Your task to perform on an android device: Search for flights from Seoul to Mexico city Image 0: 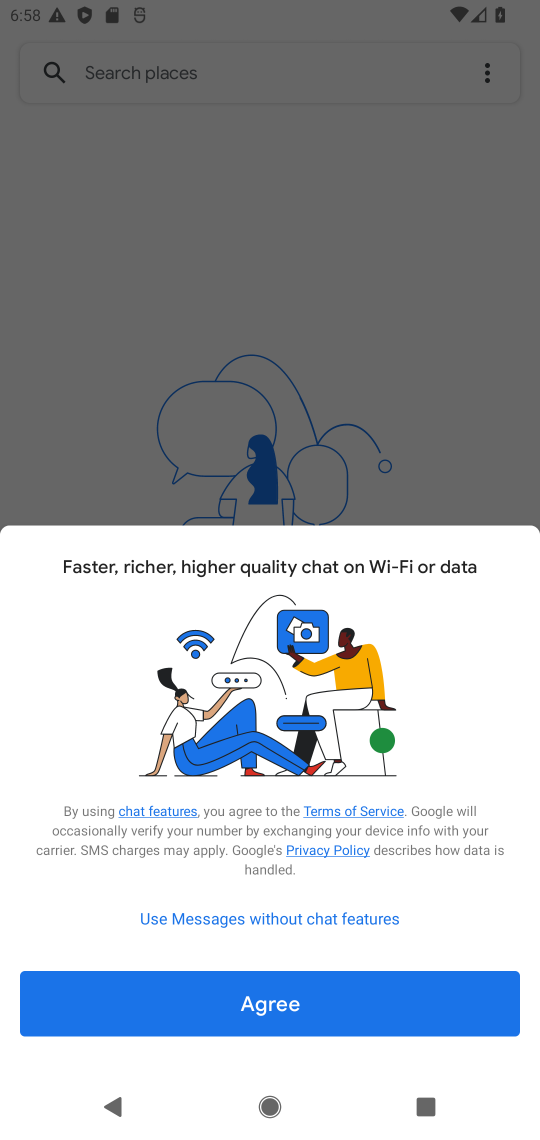
Step 0: click (459, 1008)
Your task to perform on an android device: Search for flights from Seoul to Mexico city Image 1: 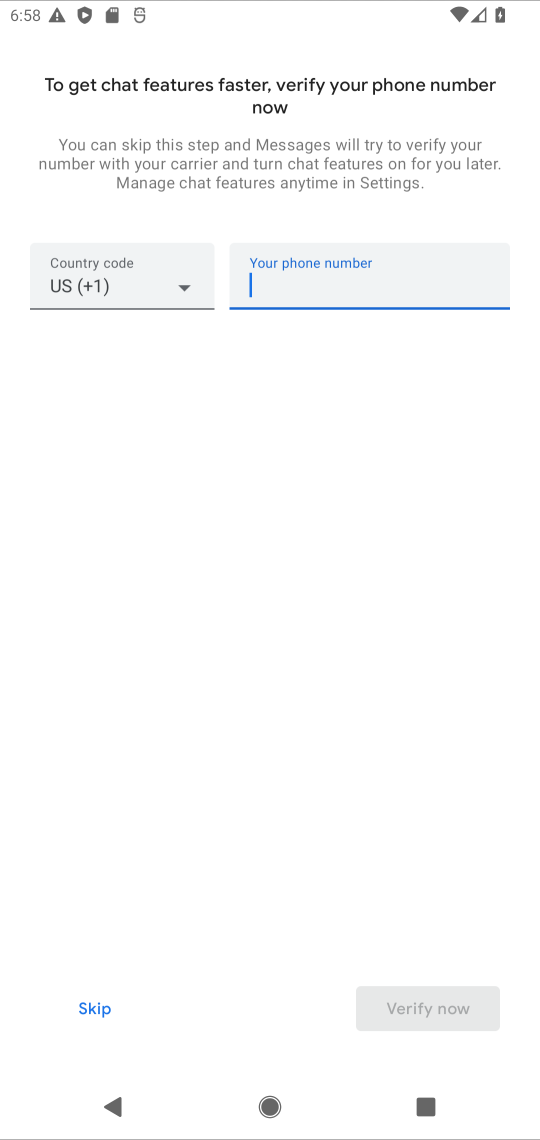
Step 1: click (408, 1121)
Your task to perform on an android device: Search for flights from Seoul to Mexico city Image 2: 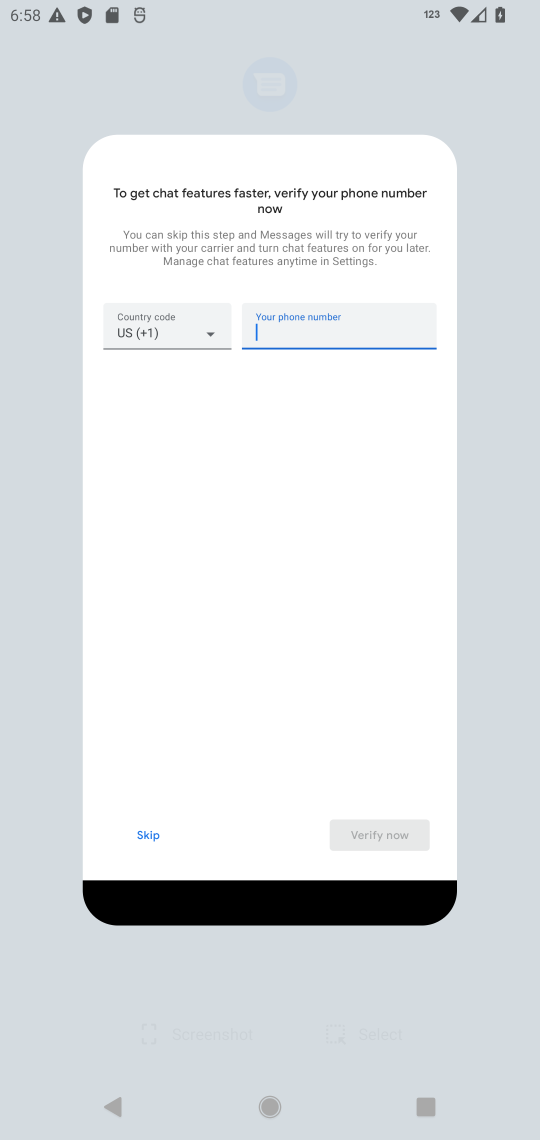
Step 2: press home button
Your task to perform on an android device: Search for flights from Seoul to Mexico city Image 3: 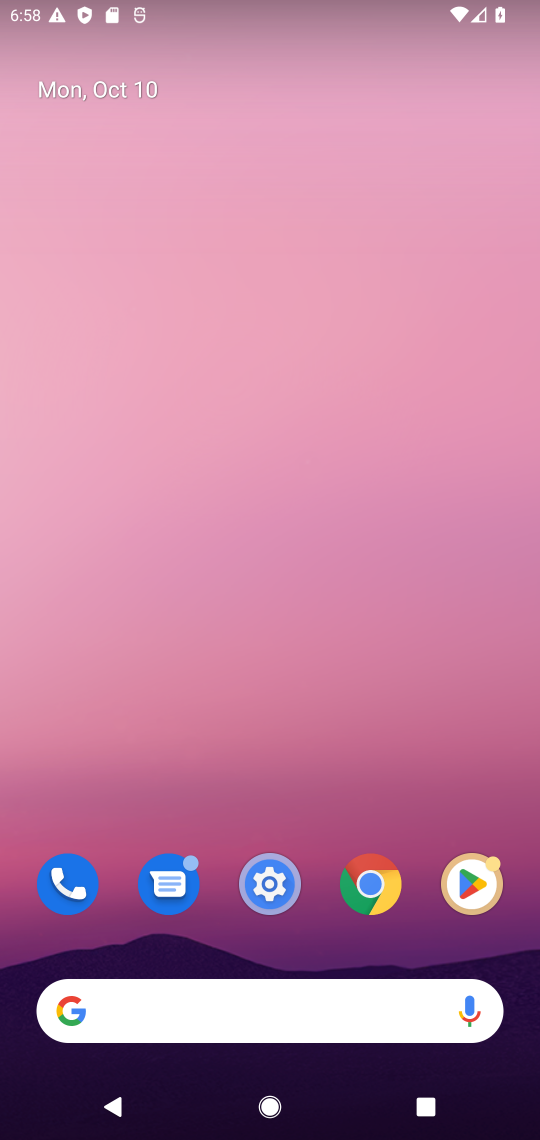
Step 3: click (383, 897)
Your task to perform on an android device: Search for flights from Seoul to Mexico city Image 4: 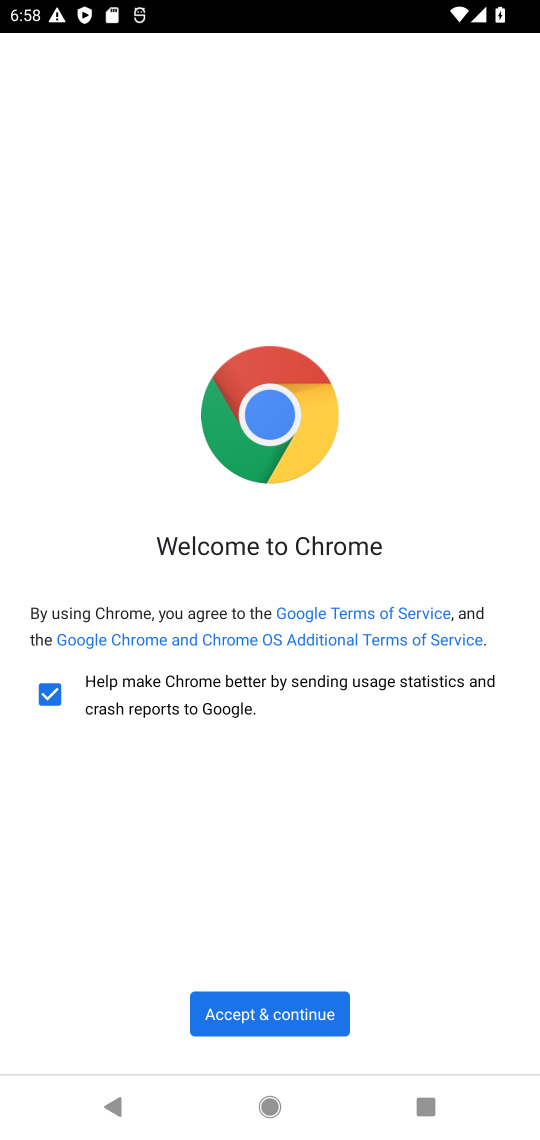
Step 4: click (270, 1018)
Your task to perform on an android device: Search for flights from Seoul to Mexico city Image 5: 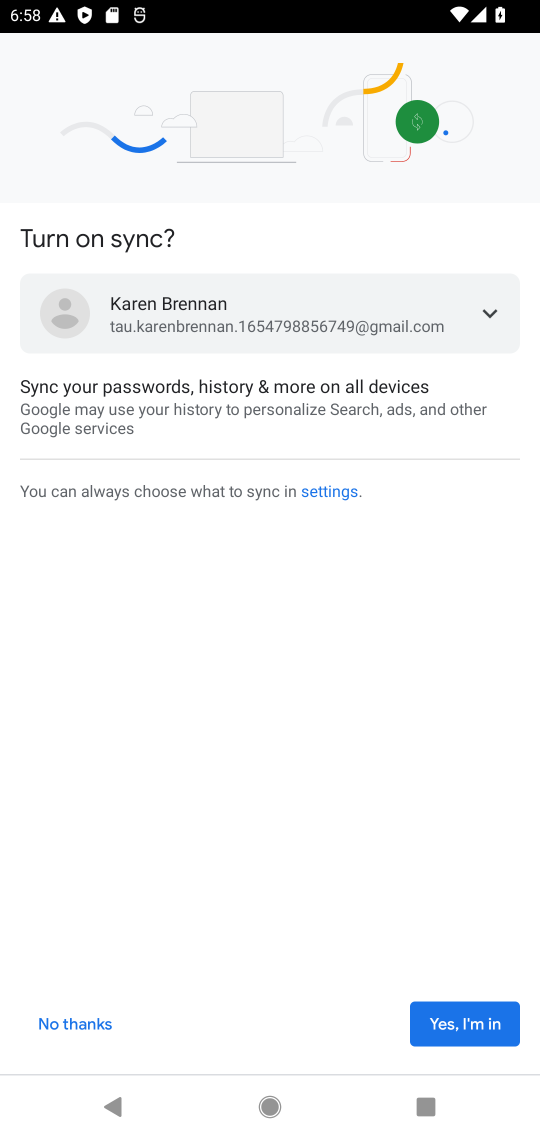
Step 5: click (383, 1014)
Your task to perform on an android device: Search for flights from Seoul to Mexico city Image 6: 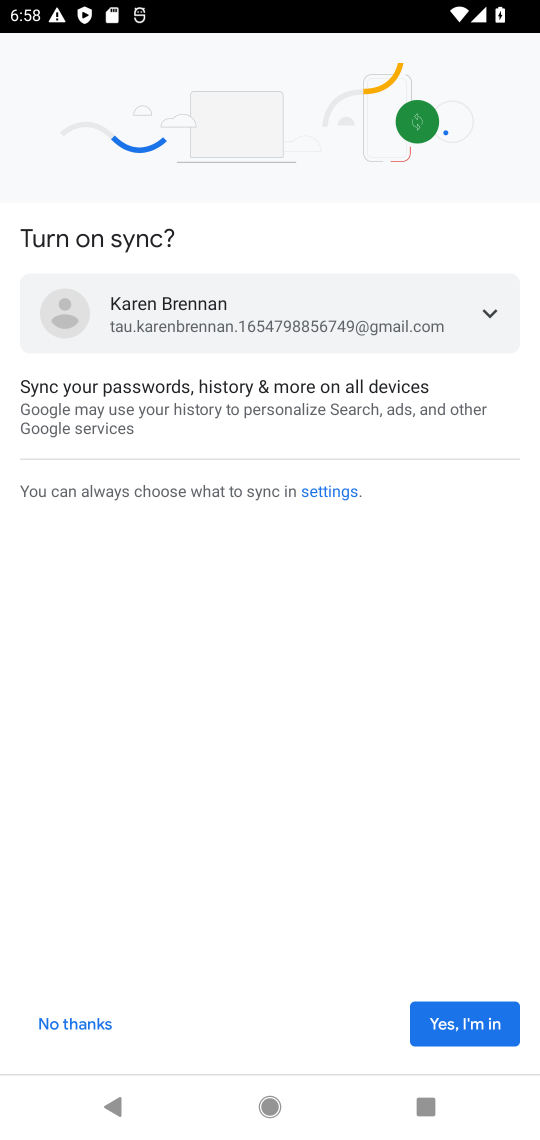
Step 6: click (433, 1022)
Your task to perform on an android device: Search for flights from Seoul to Mexico city Image 7: 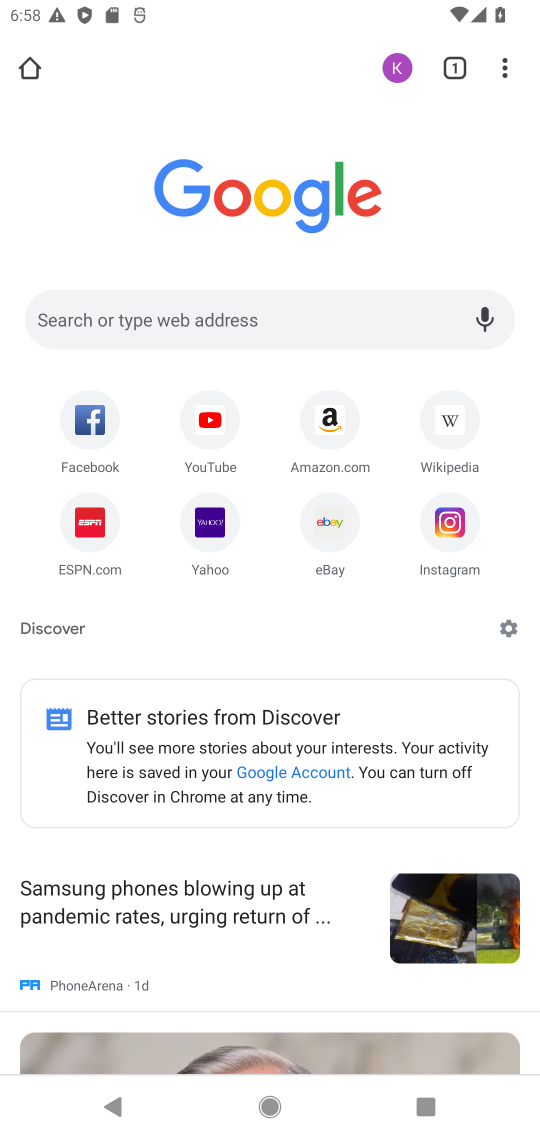
Step 7: click (336, 315)
Your task to perform on an android device: Search for flights from Seoul to Mexico city Image 8: 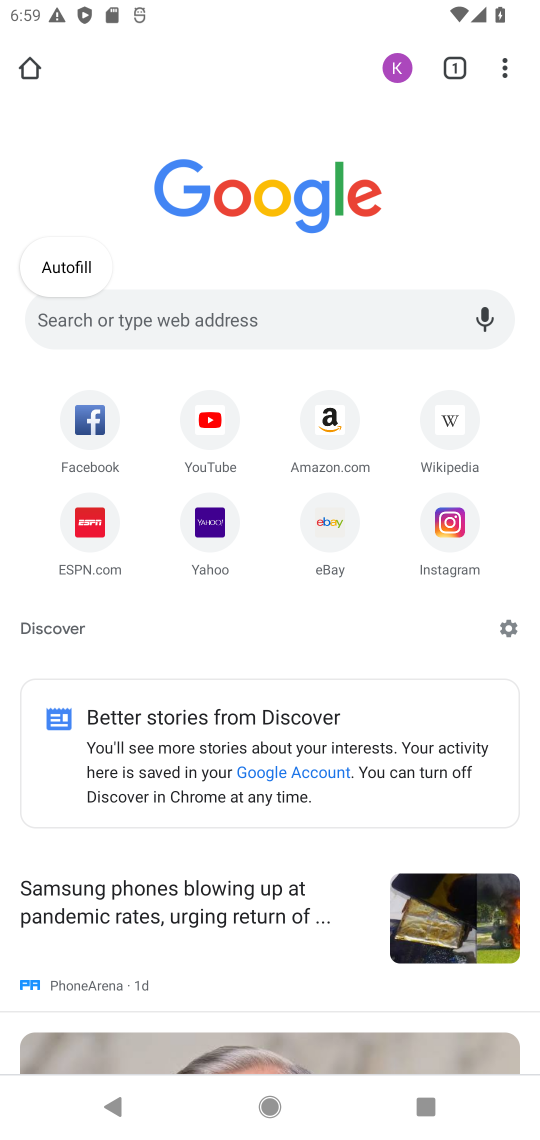
Step 8: type "flights from Seoul to Mexico city"
Your task to perform on an android device: Search for flights from Seoul to Mexico city Image 9: 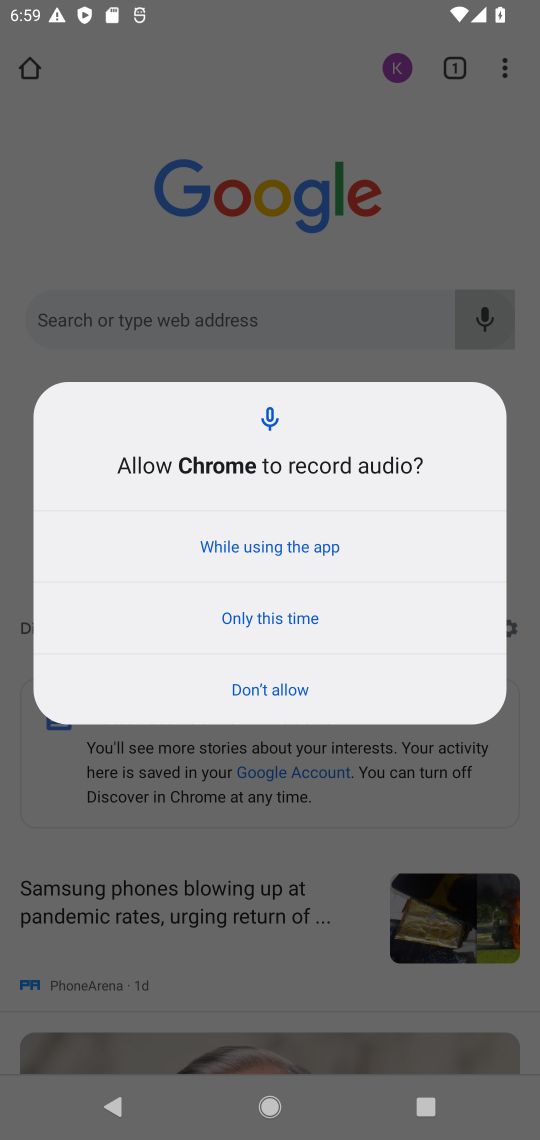
Step 9: type ""
Your task to perform on an android device: Search for flights from Seoul to Mexico city Image 10: 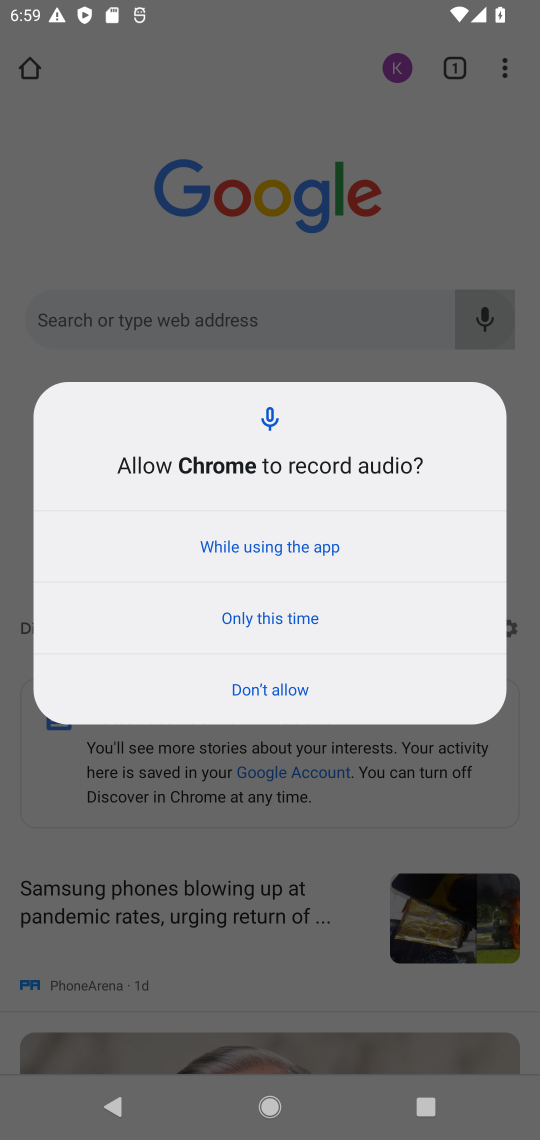
Step 10: click (371, 607)
Your task to perform on an android device: Search for flights from Seoul to Mexico city Image 11: 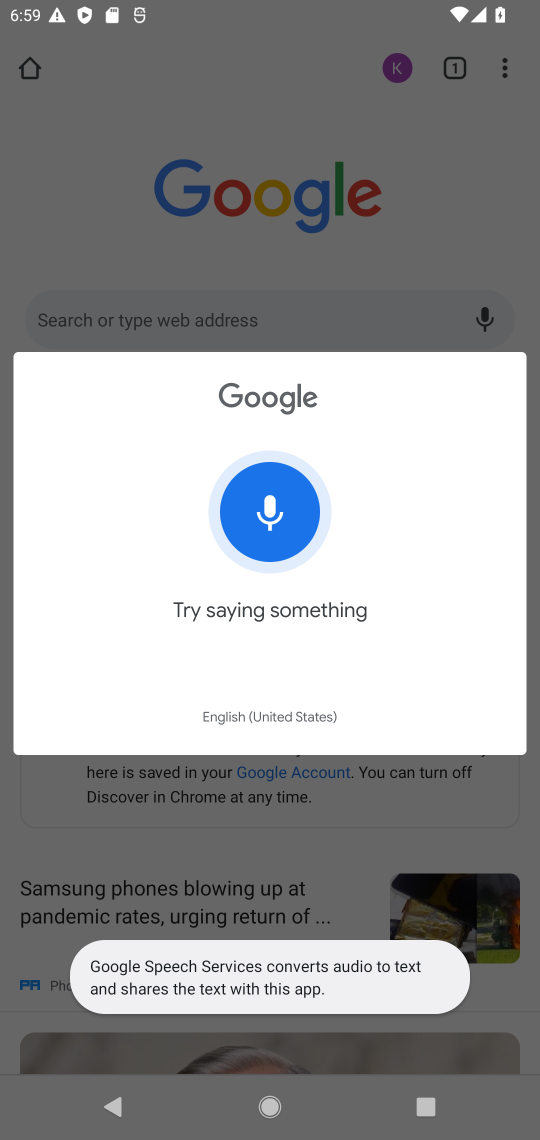
Step 11: click (353, 287)
Your task to perform on an android device: Search for flights from Seoul to Mexico city Image 12: 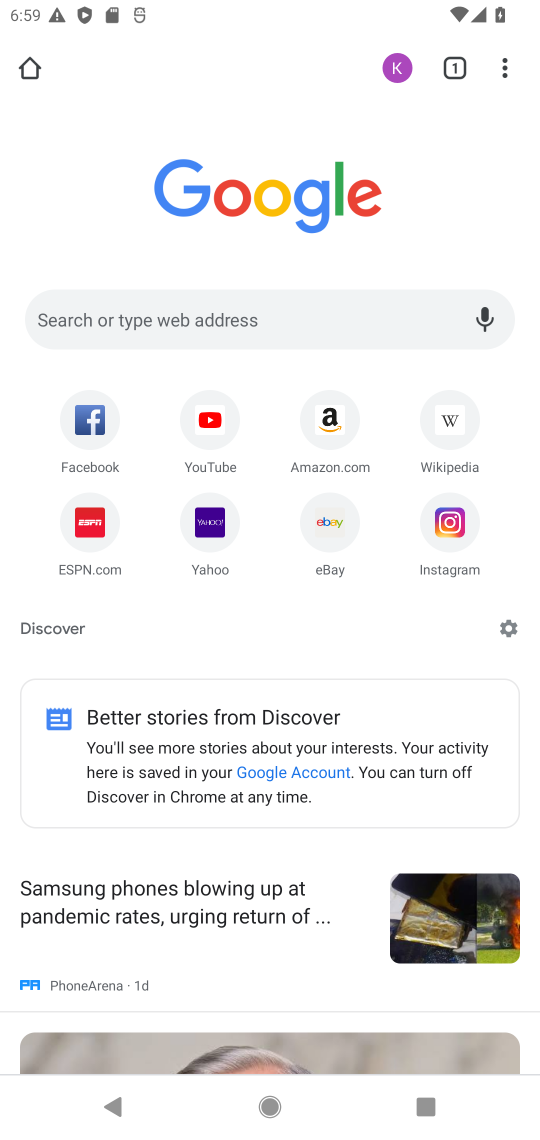
Step 12: click (333, 324)
Your task to perform on an android device: Search for flights from Seoul to Mexico city Image 13: 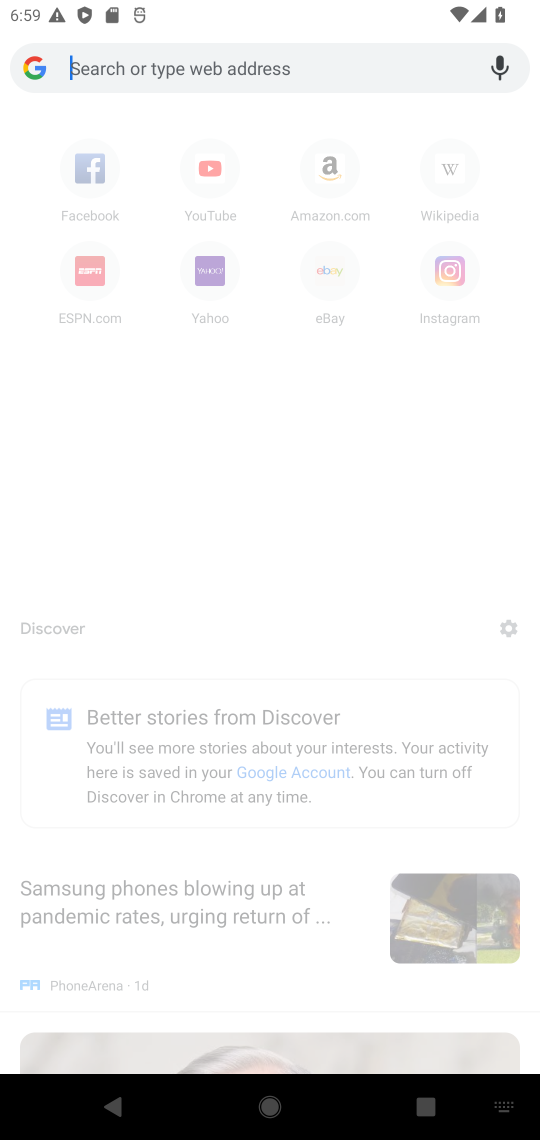
Step 13: type "flights from Seoul to Mexico city"
Your task to perform on an android device: Search for flights from Seoul to Mexico city Image 14: 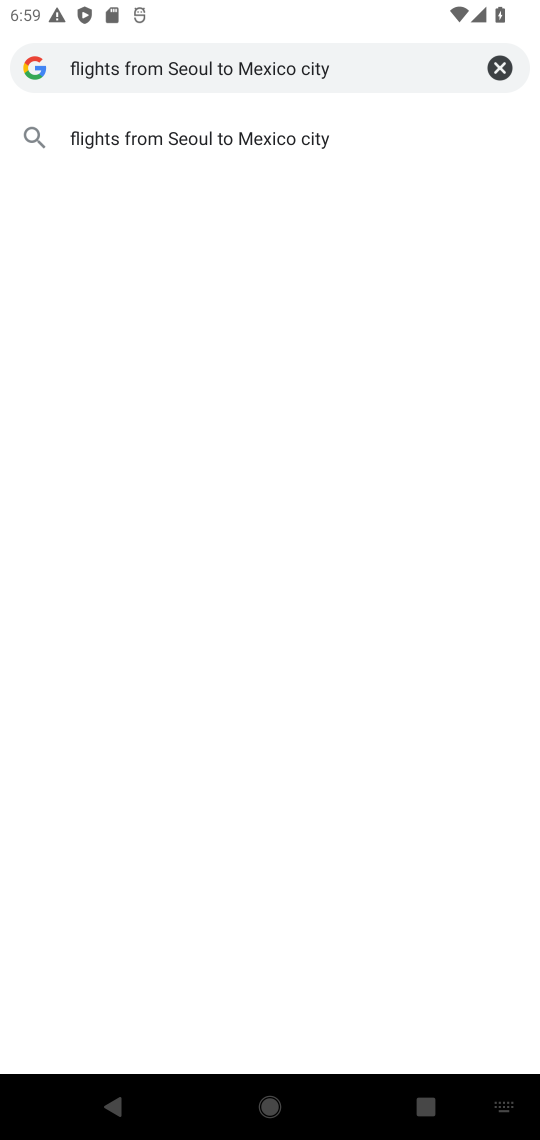
Step 14: click (285, 151)
Your task to perform on an android device: Search for flights from Seoul to Mexico city Image 15: 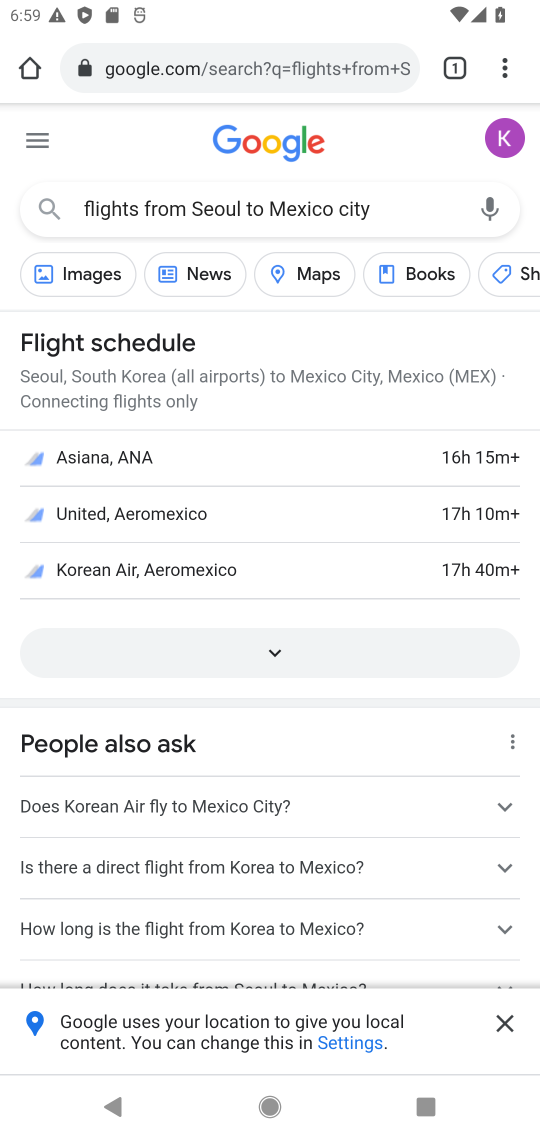
Step 15: click (237, 660)
Your task to perform on an android device: Search for flights from Seoul to Mexico city Image 16: 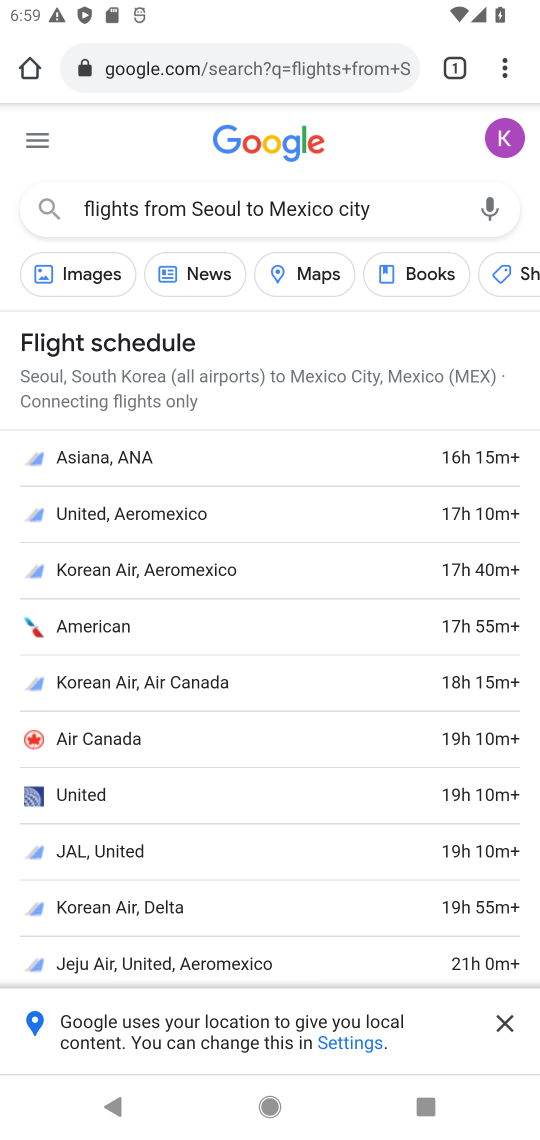
Step 16: drag from (266, 779) to (303, 374)
Your task to perform on an android device: Search for flights from Seoul to Mexico city Image 17: 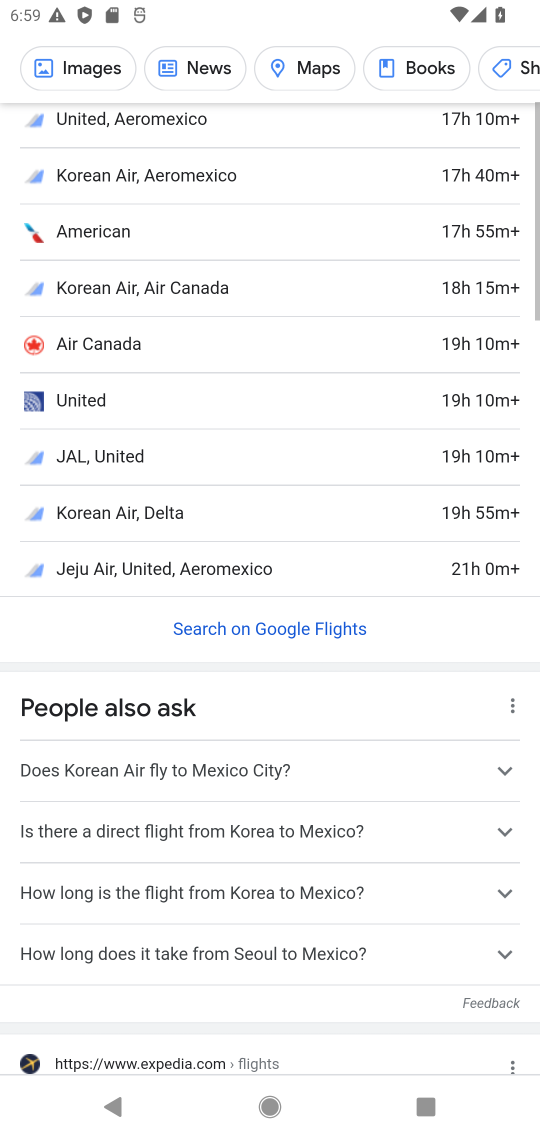
Step 17: drag from (332, 833) to (371, 389)
Your task to perform on an android device: Search for flights from Seoul to Mexico city Image 18: 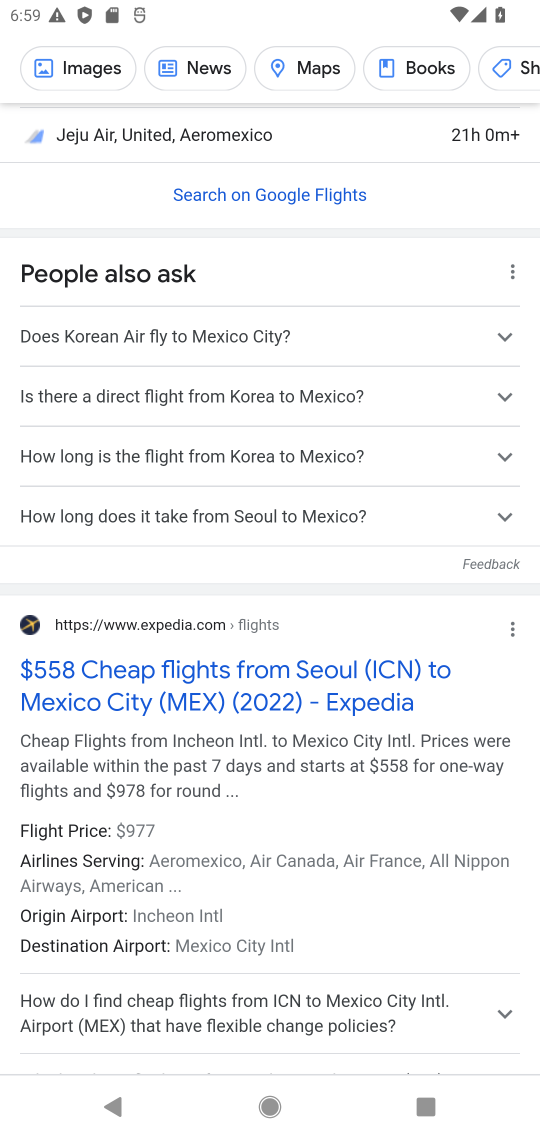
Step 18: click (214, 671)
Your task to perform on an android device: Search for flights from Seoul to Mexico city Image 19: 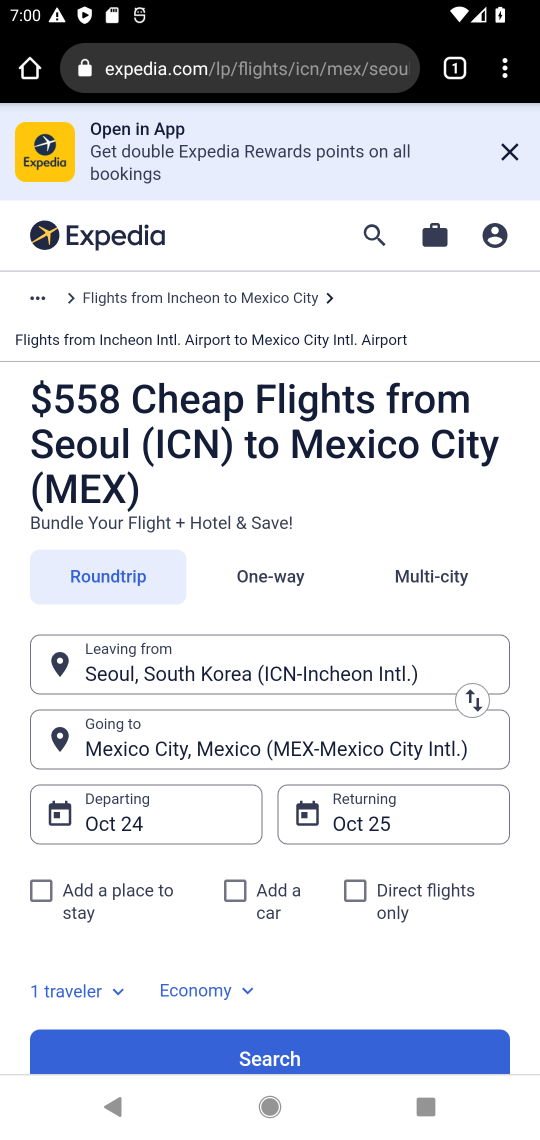
Step 19: drag from (378, 901) to (382, 273)
Your task to perform on an android device: Search for flights from Seoul to Mexico city Image 20: 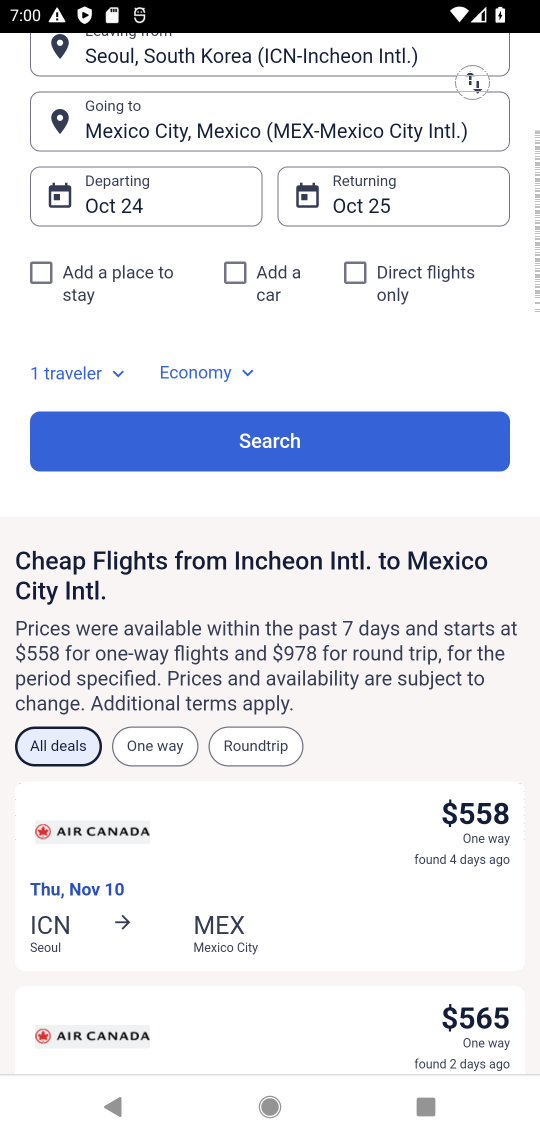
Step 20: click (394, 380)
Your task to perform on an android device: Search for flights from Seoul to Mexico city Image 21: 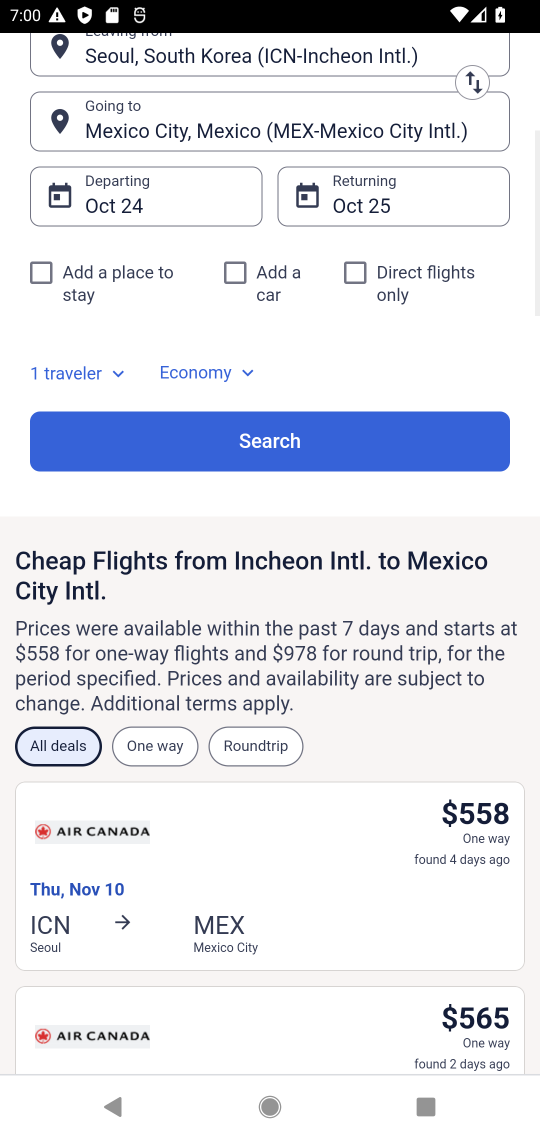
Step 21: drag from (413, 611) to (429, 269)
Your task to perform on an android device: Search for flights from Seoul to Mexico city Image 22: 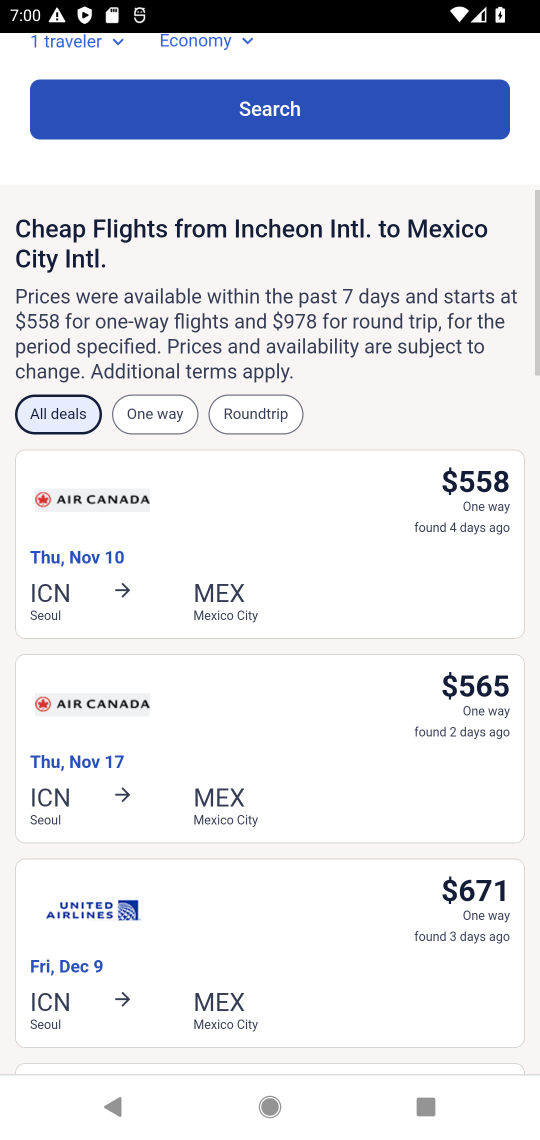
Step 22: drag from (411, 666) to (436, 282)
Your task to perform on an android device: Search for flights from Seoul to Mexico city Image 23: 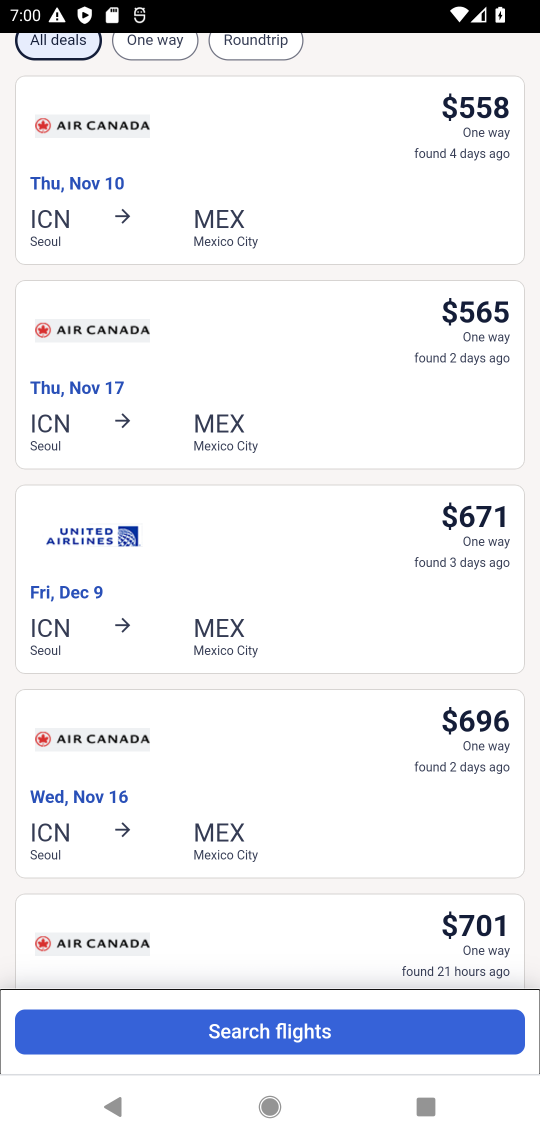
Step 23: drag from (312, 971) to (390, 138)
Your task to perform on an android device: Search for flights from Seoul to Mexico city Image 24: 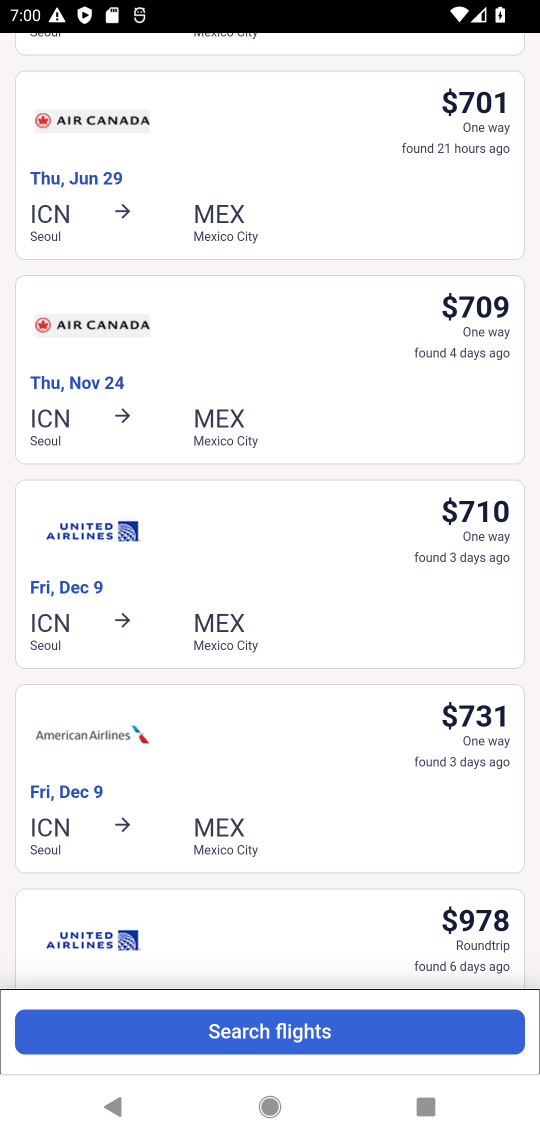
Step 24: click (334, 166)
Your task to perform on an android device: Search for flights from Seoul to Mexico city Image 25: 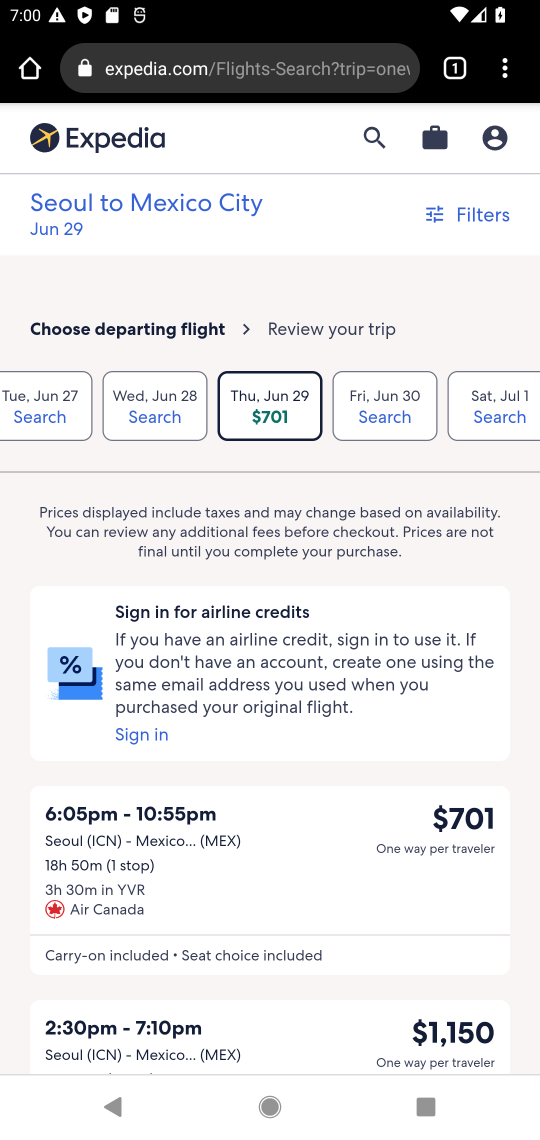
Step 25: task complete